Your task to perform on an android device: What's on my calendar today? Image 0: 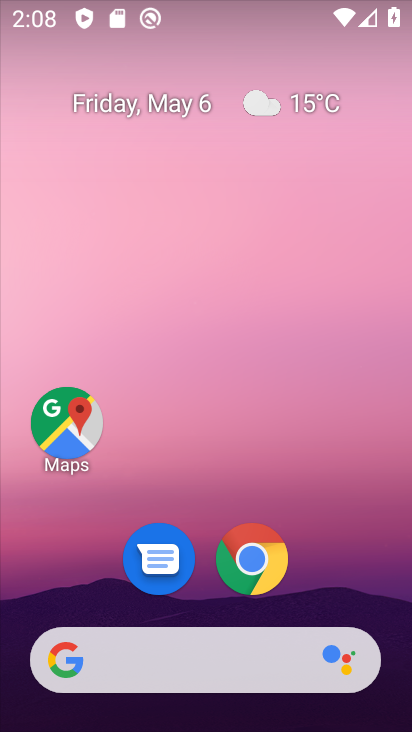
Step 0: drag from (318, 566) to (303, 78)
Your task to perform on an android device: What's on my calendar today? Image 1: 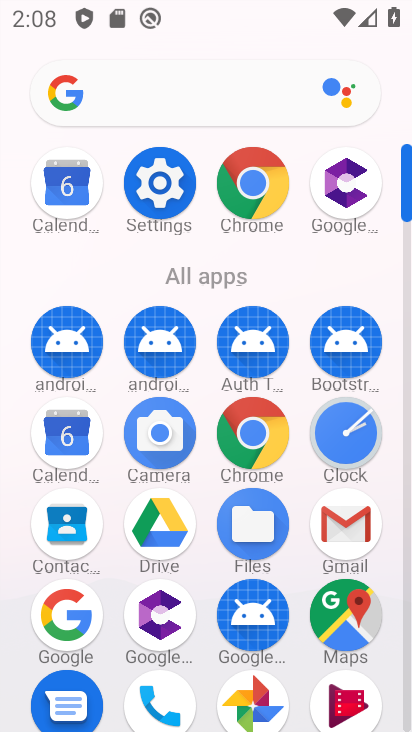
Step 1: click (41, 444)
Your task to perform on an android device: What's on my calendar today? Image 2: 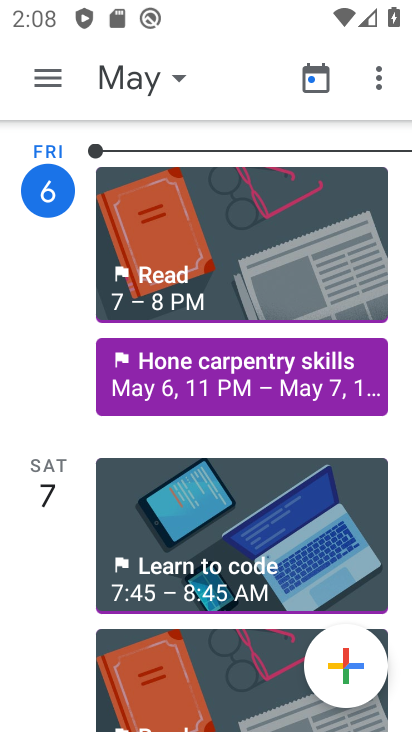
Step 2: task complete